Your task to perform on an android device: check battery use Image 0: 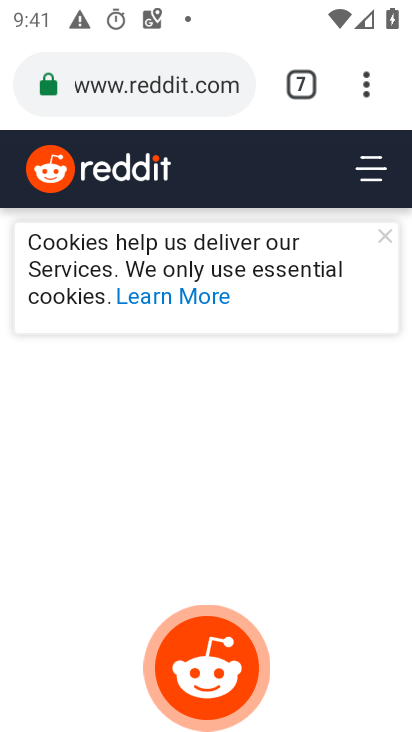
Step 0: press home button
Your task to perform on an android device: check battery use Image 1: 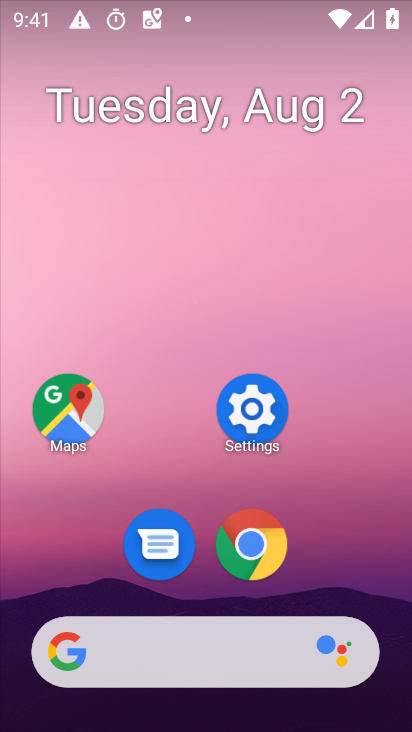
Step 1: click (255, 411)
Your task to perform on an android device: check battery use Image 2: 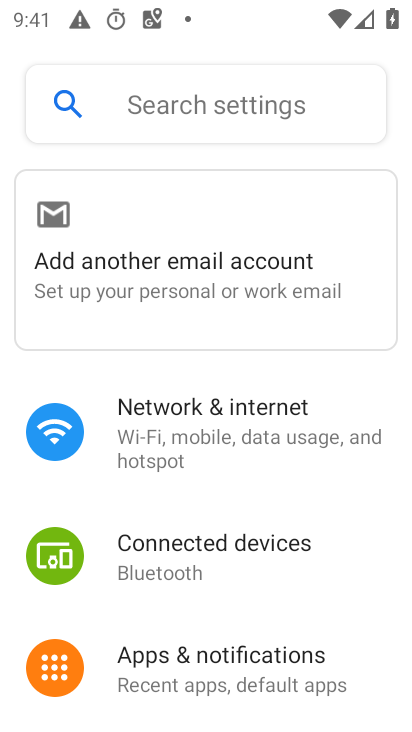
Step 2: drag from (220, 618) to (362, 124)
Your task to perform on an android device: check battery use Image 3: 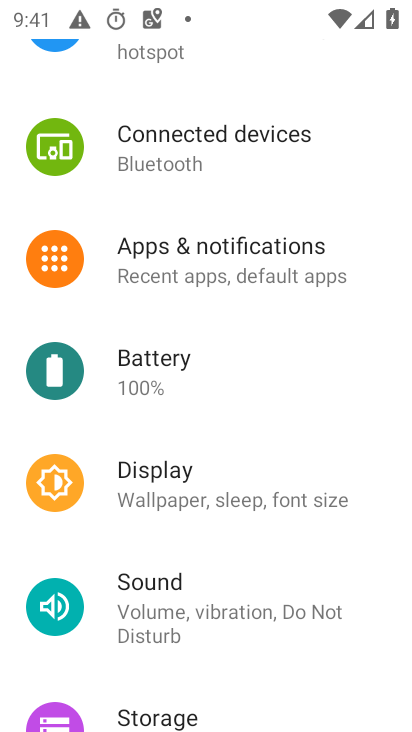
Step 3: click (129, 379)
Your task to perform on an android device: check battery use Image 4: 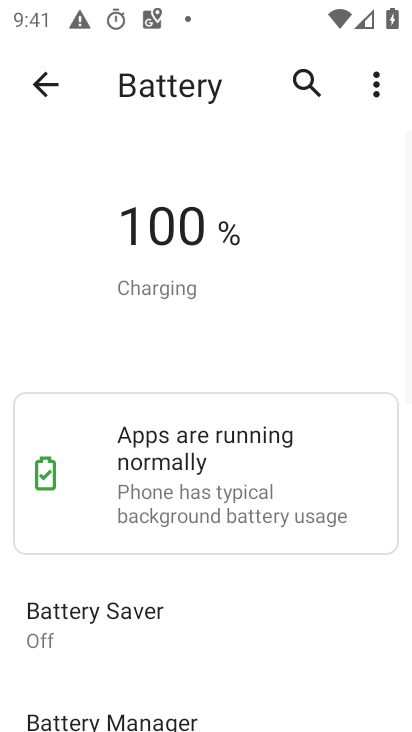
Step 4: click (371, 86)
Your task to perform on an android device: check battery use Image 5: 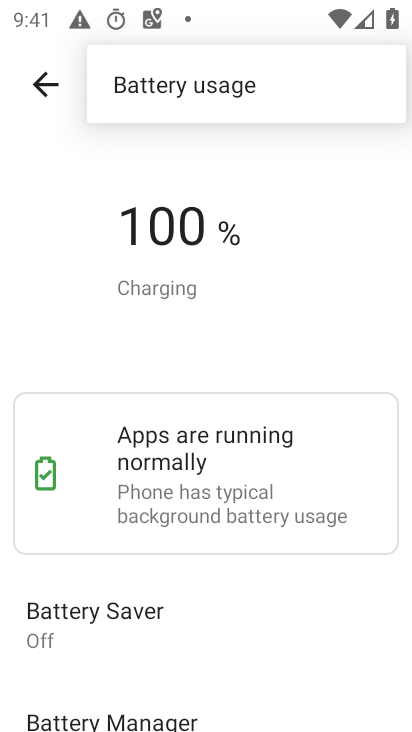
Step 5: click (224, 87)
Your task to perform on an android device: check battery use Image 6: 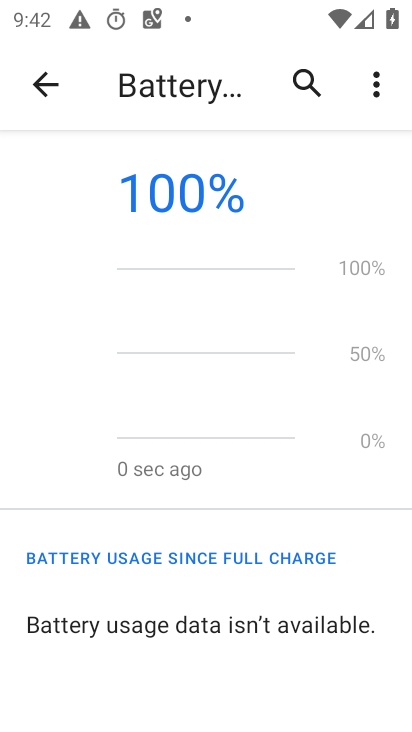
Step 6: task complete